Your task to perform on an android device: see tabs open on other devices in the chrome app Image 0: 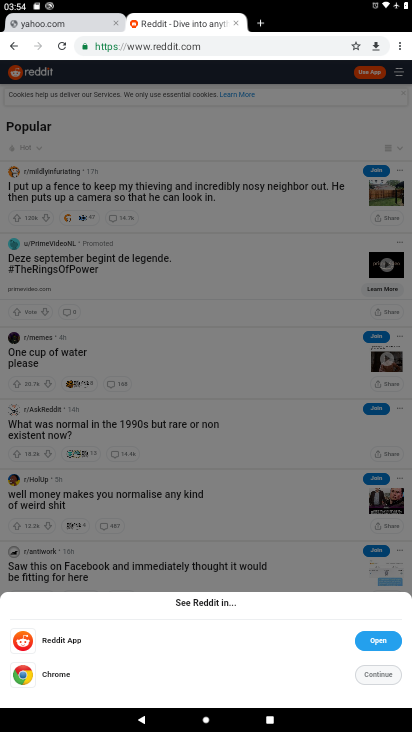
Step 0: click (399, 48)
Your task to perform on an android device: see tabs open on other devices in the chrome app Image 1: 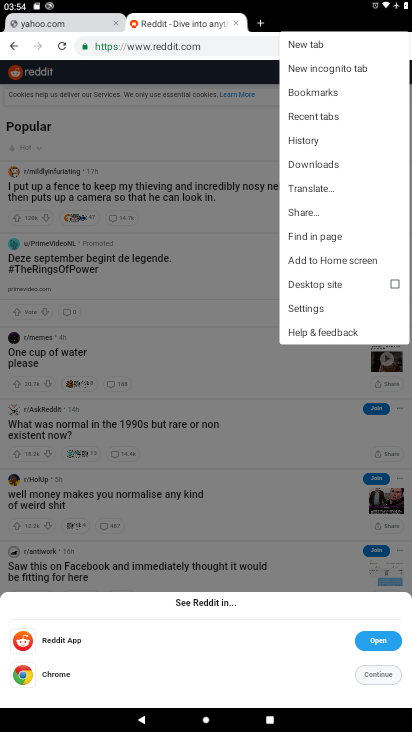
Step 1: click (317, 115)
Your task to perform on an android device: see tabs open on other devices in the chrome app Image 2: 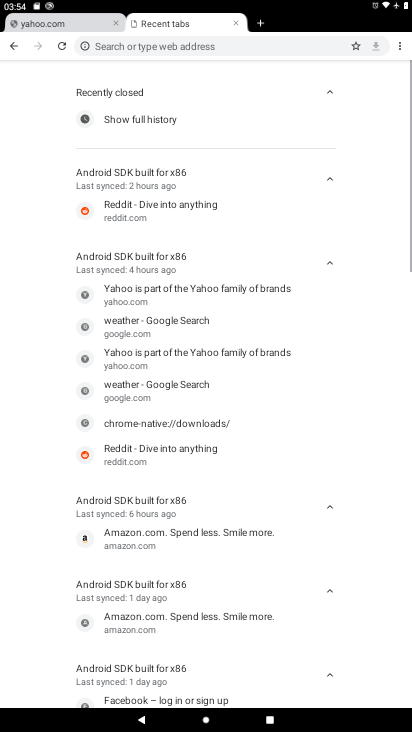
Step 2: task complete